Your task to perform on an android device: Go to accessibility settings Image 0: 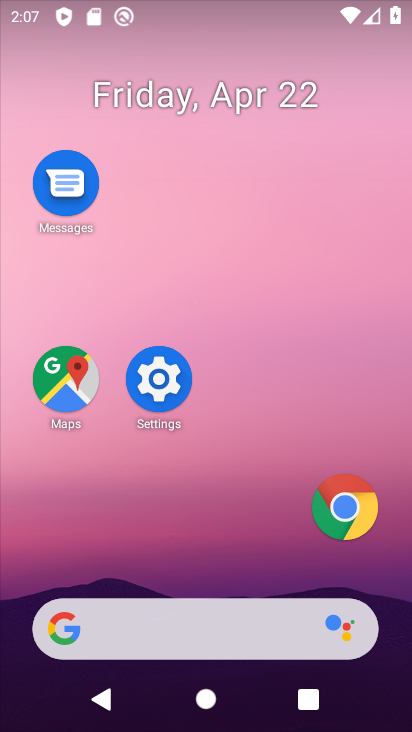
Step 0: drag from (197, 272) to (222, 483)
Your task to perform on an android device: Go to accessibility settings Image 1: 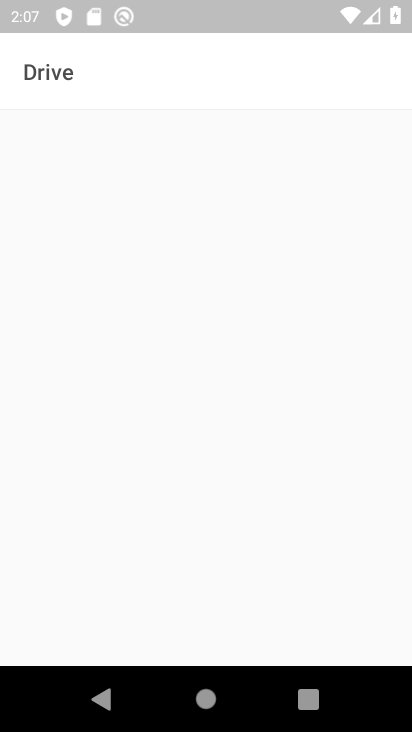
Step 1: click (150, 377)
Your task to perform on an android device: Go to accessibility settings Image 2: 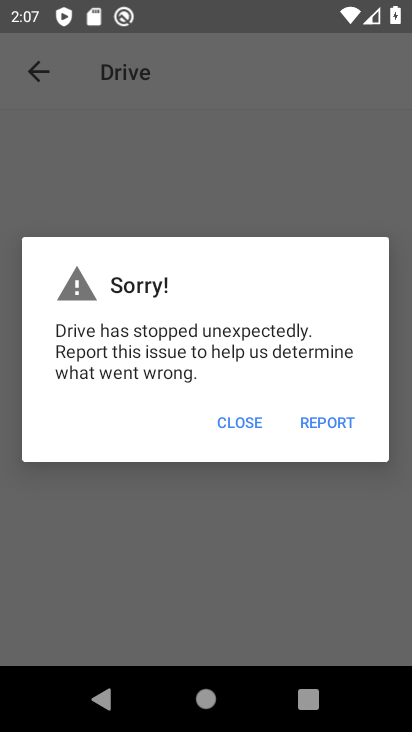
Step 2: click (330, 426)
Your task to perform on an android device: Go to accessibility settings Image 3: 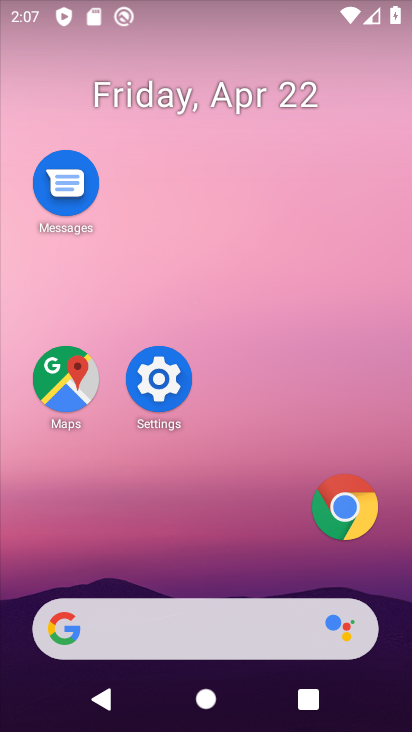
Step 3: click (227, 185)
Your task to perform on an android device: Go to accessibility settings Image 4: 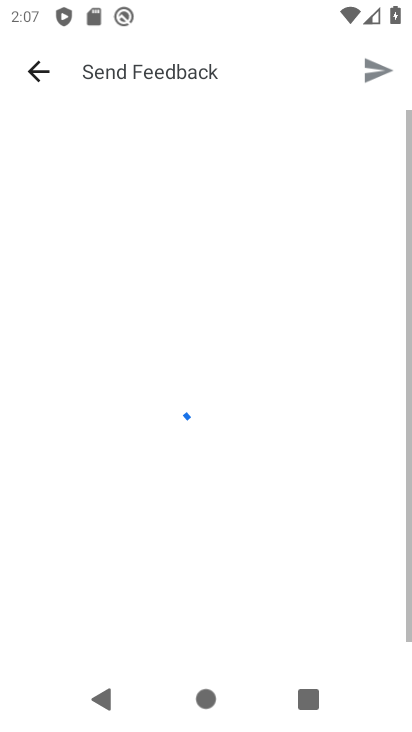
Step 4: drag from (211, 365) to (198, 229)
Your task to perform on an android device: Go to accessibility settings Image 5: 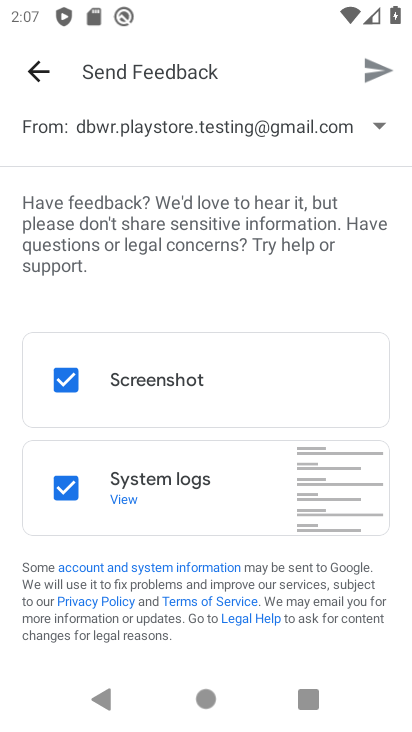
Step 5: click (38, 75)
Your task to perform on an android device: Go to accessibility settings Image 6: 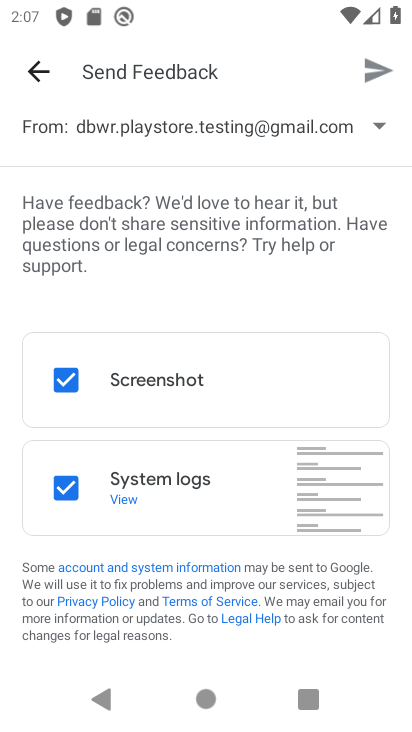
Step 6: click (36, 73)
Your task to perform on an android device: Go to accessibility settings Image 7: 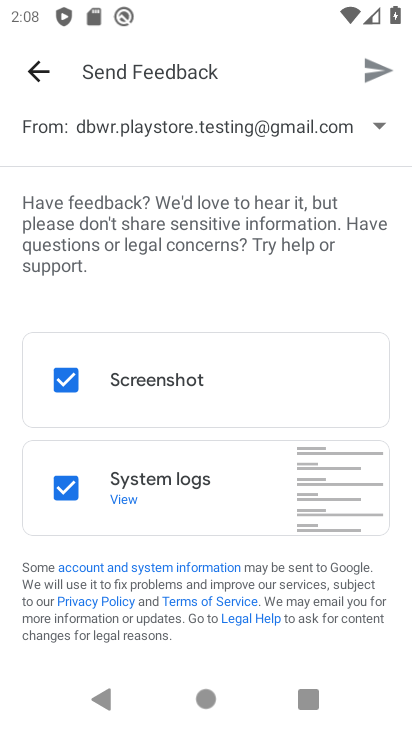
Step 7: click (37, 72)
Your task to perform on an android device: Go to accessibility settings Image 8: 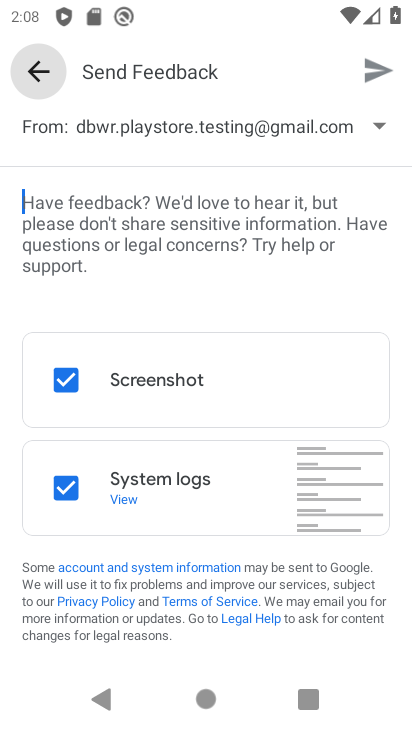
Step 8: click (37, 72)
Your task to perform on an android device: Go to accessibility settings Image 9: 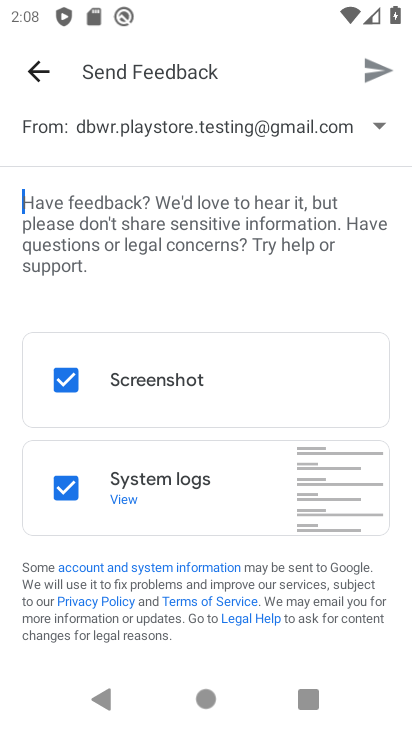
Step 9: click (29, 64)
Your task to perform on an android device: Go to accessibility settings Image 10: 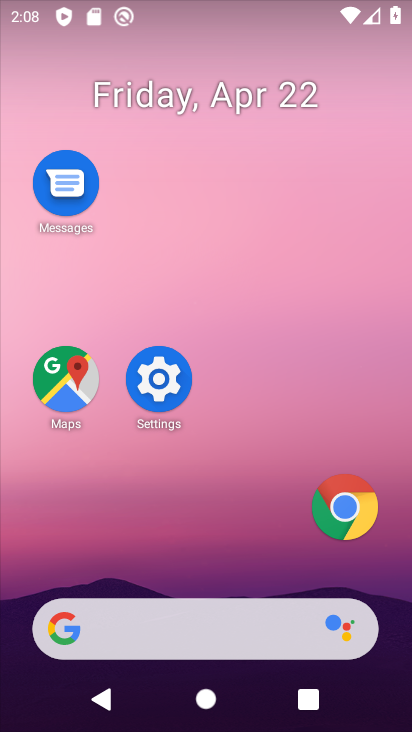
Step 10: drag from (236, 651) to (209, 52)
Your task to perform on an android device: Go to accessibility settings Image 11: 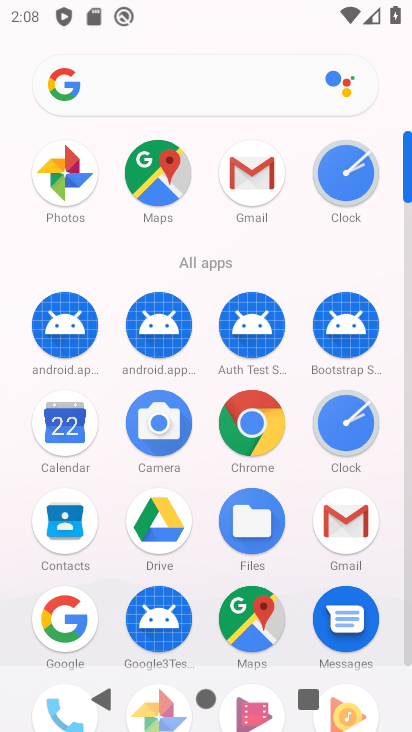
Step 11: drag from (153, 514) to (192, 211)
Your task to perform on an android device: Go to accessibility settings Image 12: 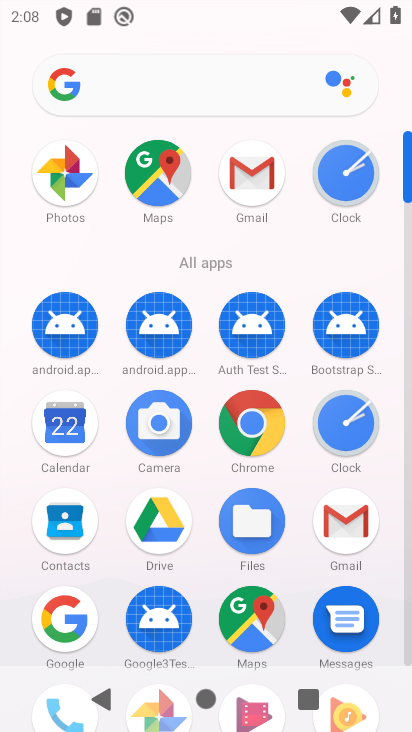
Step 12: drag from (217, 544) to (184, 634)
Your task to perform on an android device: Go to accessibility settings Image 13: 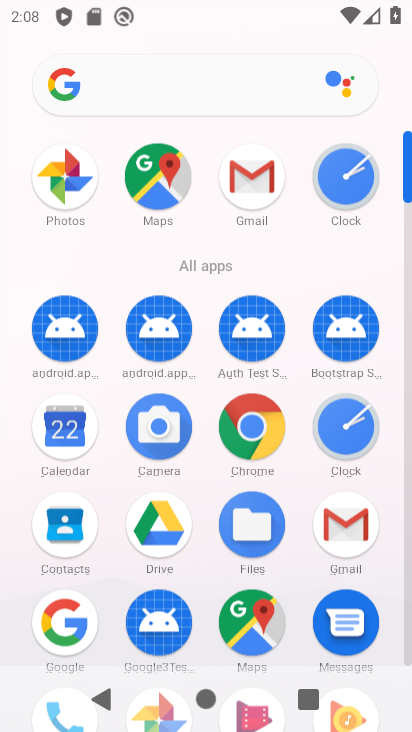
Step 13: drag from (187, 560) to (160, 325)
Your task to perform on an android device: Go to accessibility settings Image 14: 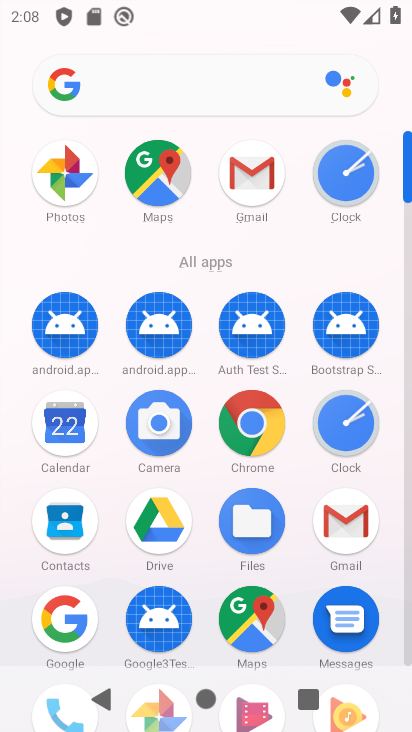
Step 14: drag from (206, 290) to (168, 68)
Your task to perform on an android device: Go to accessibility settings Image 15: 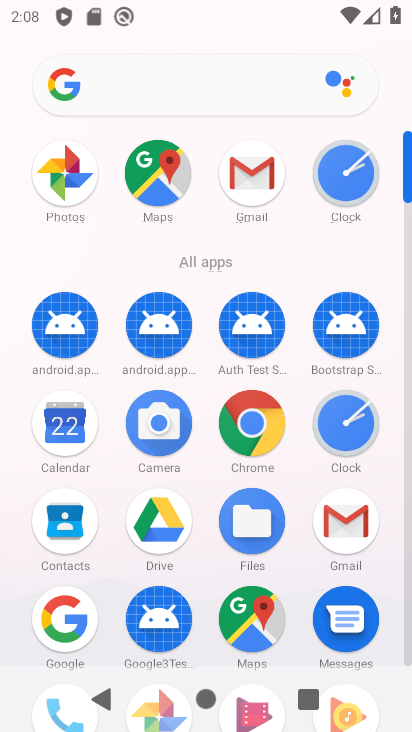
Step 15: drag from (193, 553) to (154, 254)
Your task to perform on an android device: Go to accessibility settings Image 16: 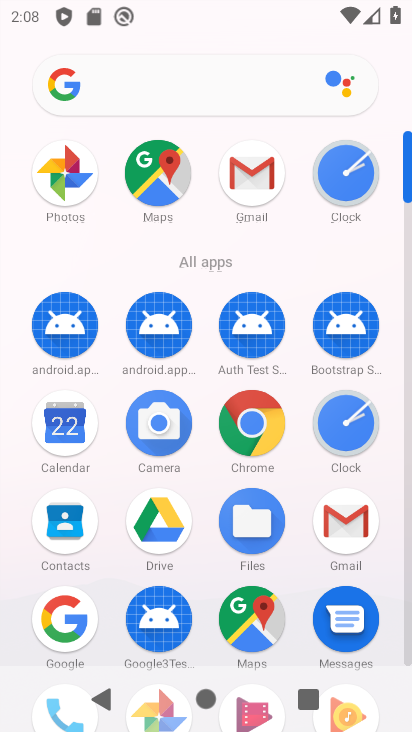
Step 16: drag from (206, 331) to (179, 91)
Your task to perform on an android device: Go to accessibility settings Image 17: 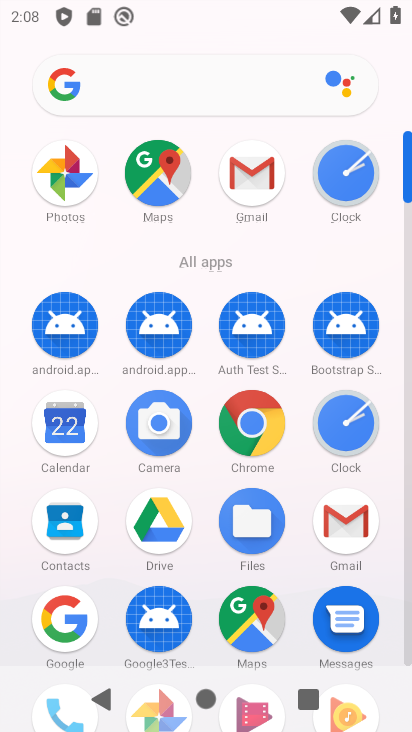
Step 17: drag from (384, 525) to (365, 293)
Your task to perform on an android device: Go to accessibility settings Image 18: 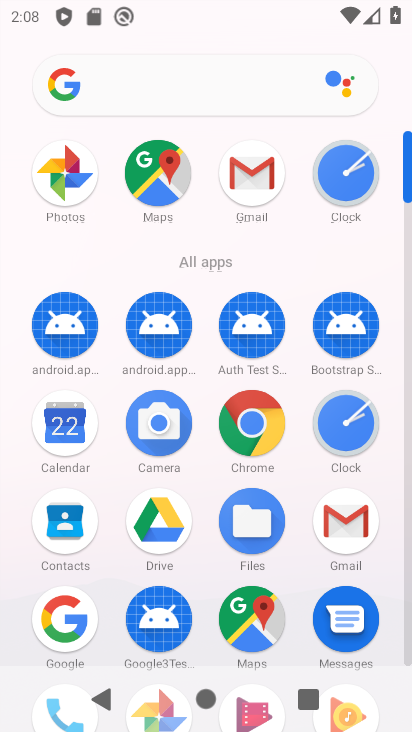
Step 18: click (405, 571)
Your task to perform on an android device: Go to accessibility settings Image 19: 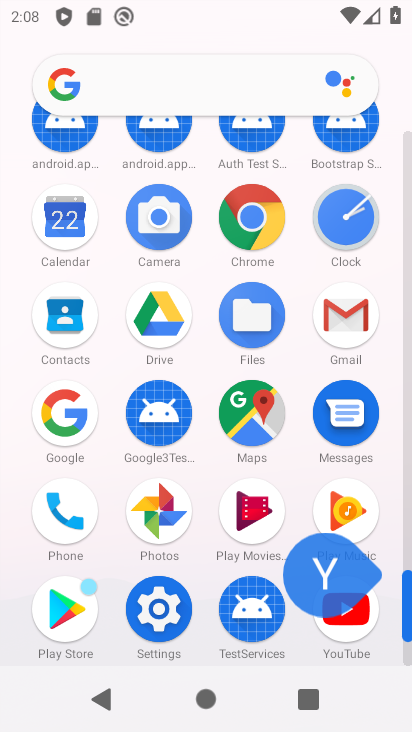
Step 19: click (398, 616)
Your task to perform on an android device: Go to accessibility settings Image 20: 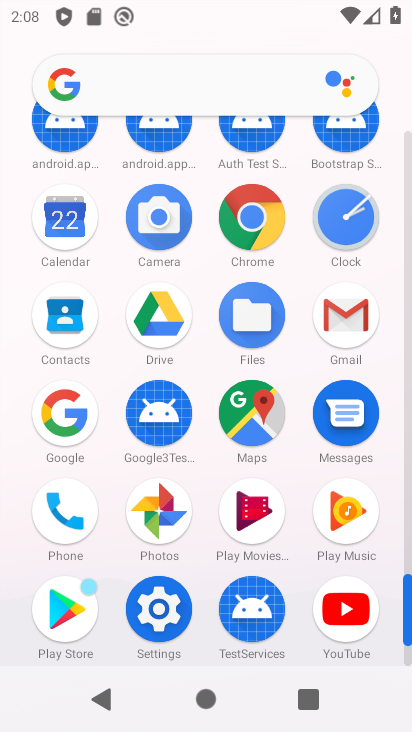
Step 20: click (399, 546)
Your task to perform on an android device: Go to accessibility settings Image 21: 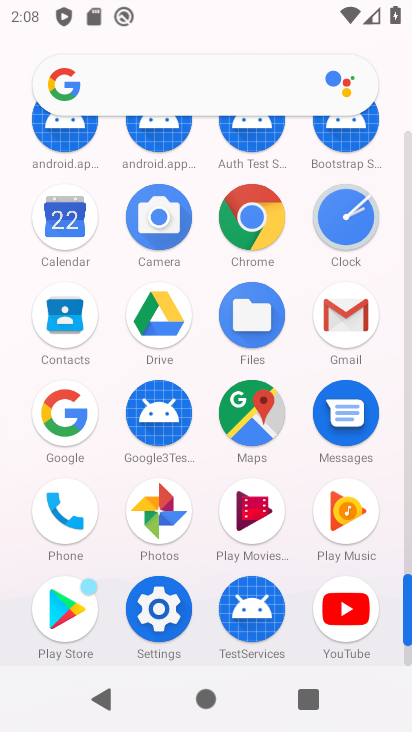
Step 21: click (152, 611)
Your task to perform on an android device: Go to accessibility settings Image 22: 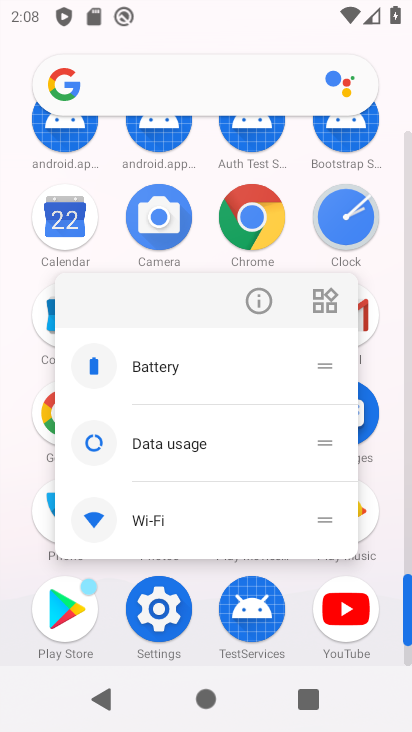
Step 22: click (158, 601)
Your task to perform on an android device: Go to accessibility settings Image 23: 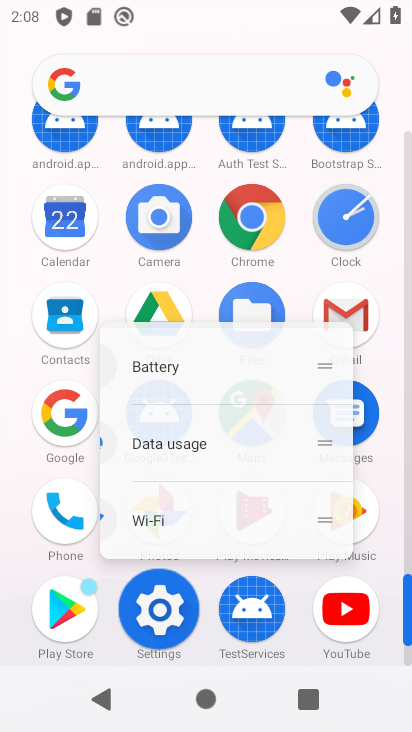
Step 23: click (156, 586)
Your task to perform on an android device: Go to accessibility settings Image 24: 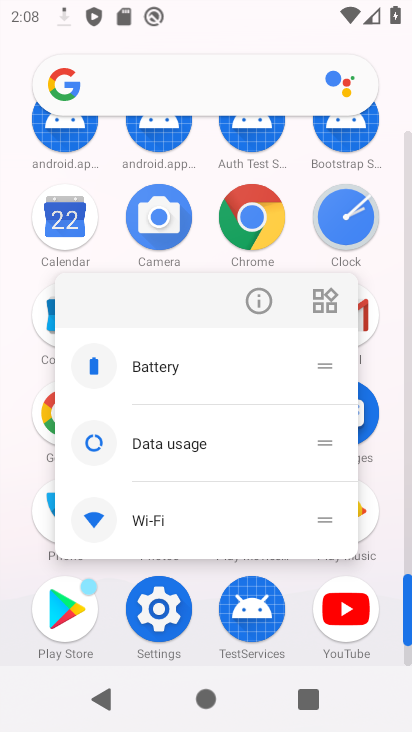
Step 24: click (150, 608)
Your task to perform on an android device: Go to accessibility settings Image 25: 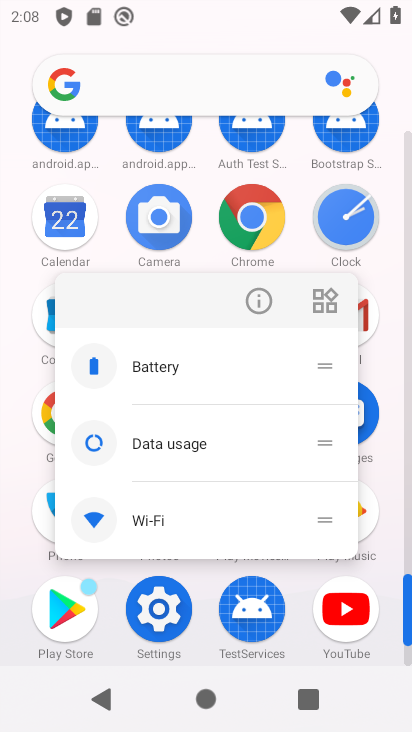
Step 25: click (157, 596)
Your task to perform on an android device: Go to accessibility settings Image 26: 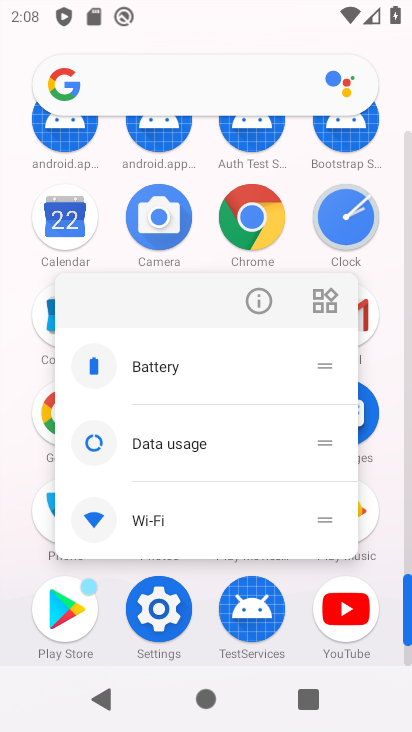
Step 26: click (163, 591)
Your task to perform on an android device: Go to accessibility settings Image 27: 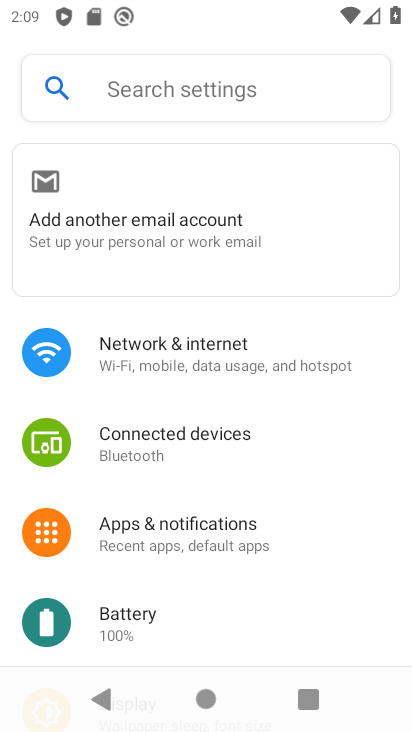
Step 27: drag from (240, 525) to (213, 180)
Your task to perform on an android device: Go to accessibility settings Image 28: 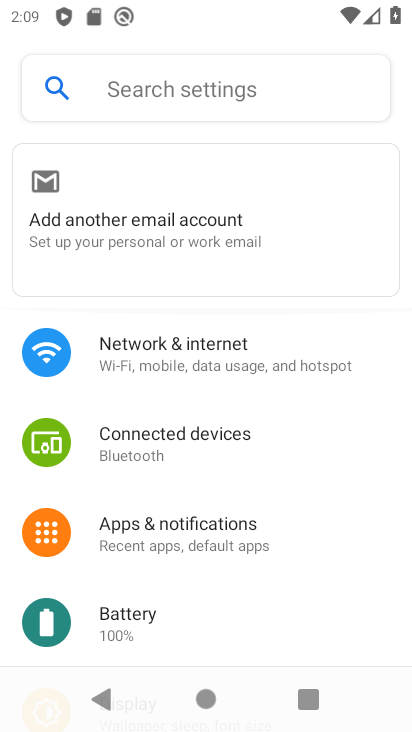
Step 28: drag from (213, 176) to (219, 115)
Your task to perform on an android device: Go to accessibility settings Image 29: 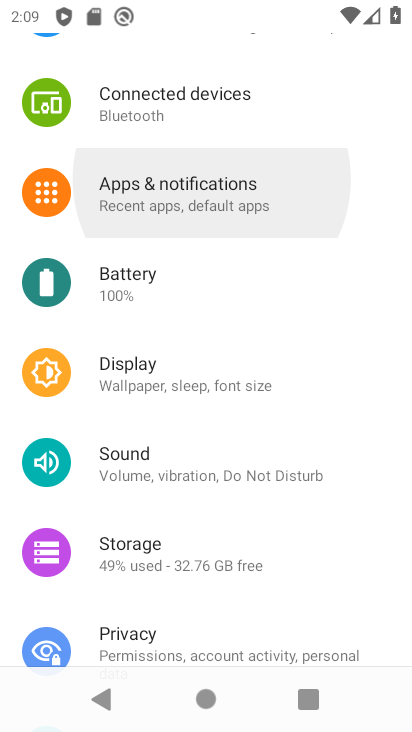
Step 29: click (190, 82)
Your task to perform on an android device: Go to accessibility settings Image 30: 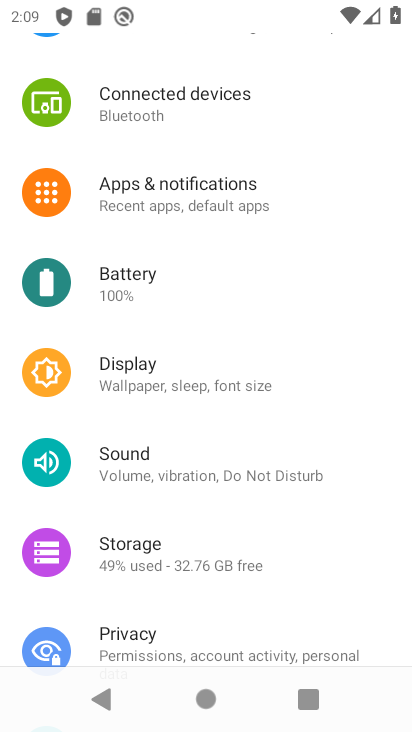
Step 30: drag from (124, 416) to (116, 67)
Your task to perform on an android device: Go to accessibility settings Image 31: 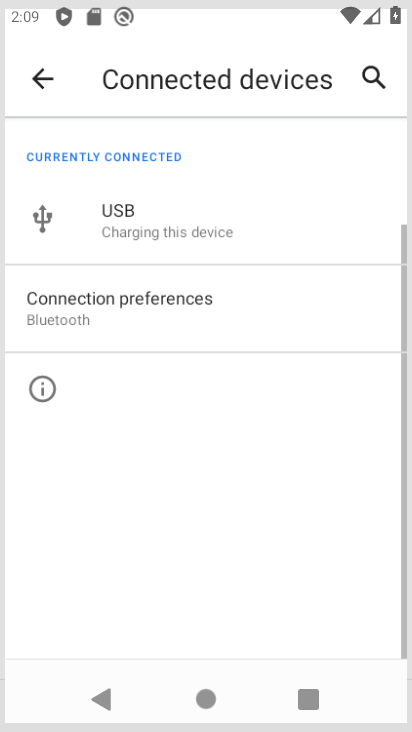
Step 31: click (158, 113)
Your task to perform on an android device: Go to accessibility settings Image 32: 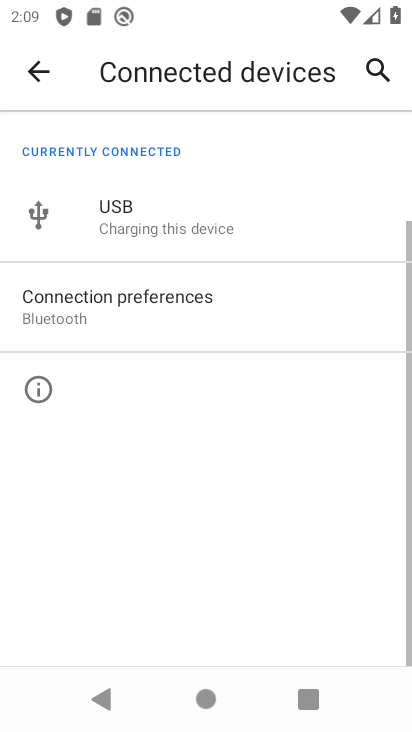
Step 32: click (202, 110)
Your task to perform on an android device: Go to accessibility settings Image 33: 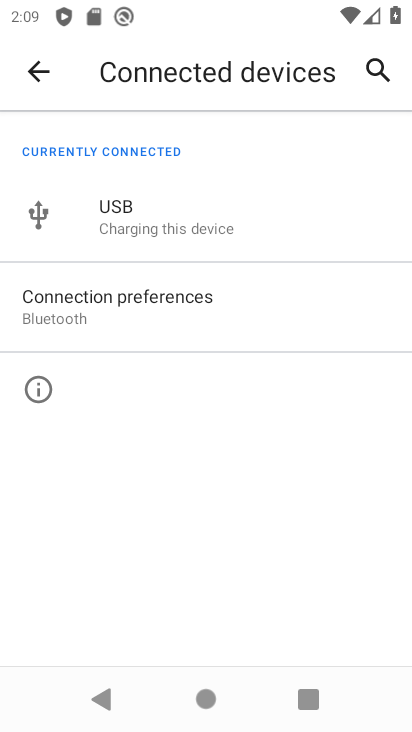
Step 33: click (38, 71)
Your task to perform on an android device: Go to accessibility settings Image 34: 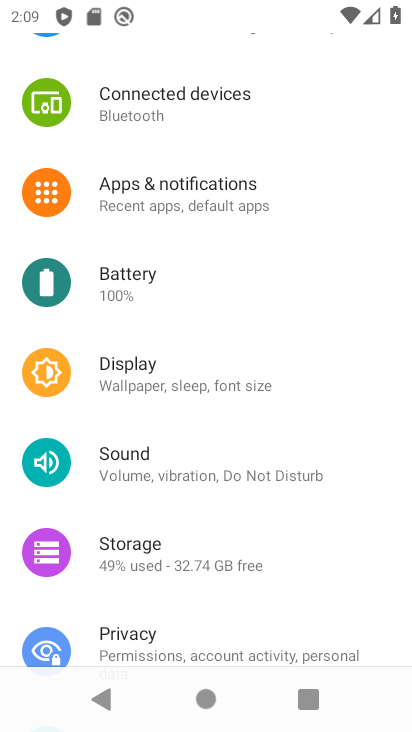
Step 34: drag from (170, 368) to (106, 89)
Your task to perform on an android device: Go to accessibility settings Image 35: 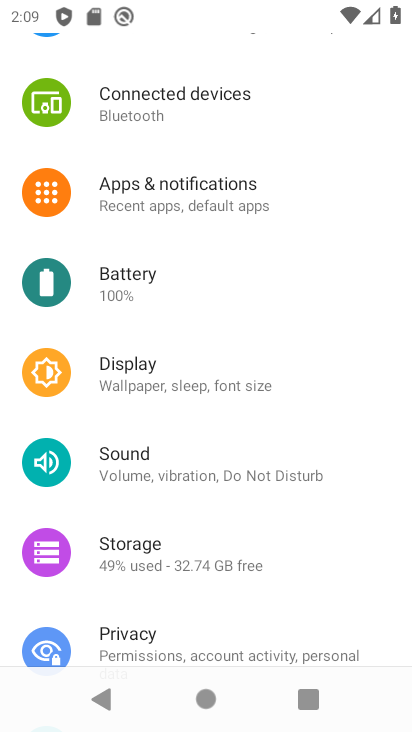
Step 35: click (143, 76)
Your task to perform on an android device: Go to accessibility settings Image 36: 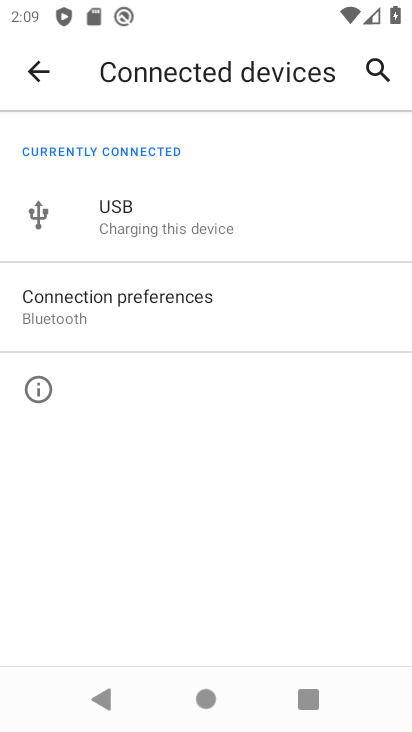
Step 36: click (27, 61)
Your task to perform on an android device: Go to accessibility settings Image 37: 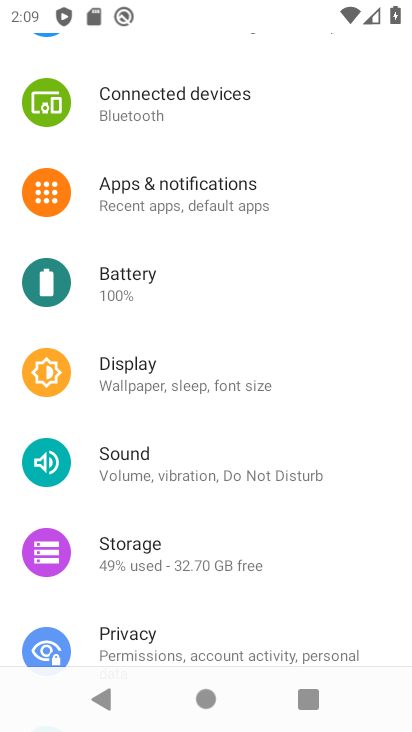
Step 37: drag from (194, 160) to (202, 238)
Your task to perform on an android device: Go to accessibility settings Image 38: 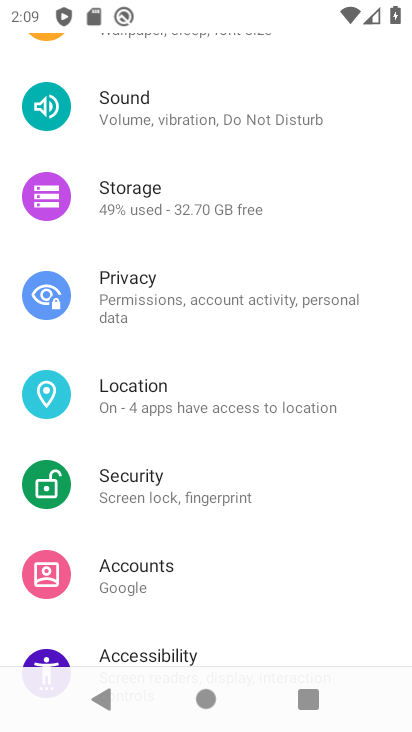
Step 38: click (146, 652)
Your task to perform on an android device: Go to accessibility settings Image 39: 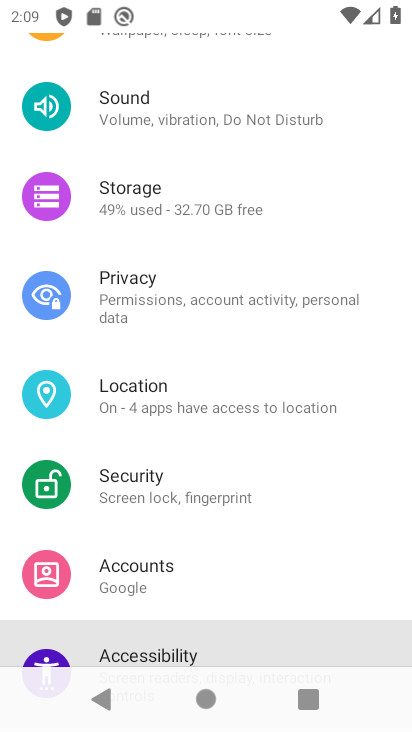
Step 39: click (146, 652)
Your task to perform on an android device: Go to accessibility settings Image 40: 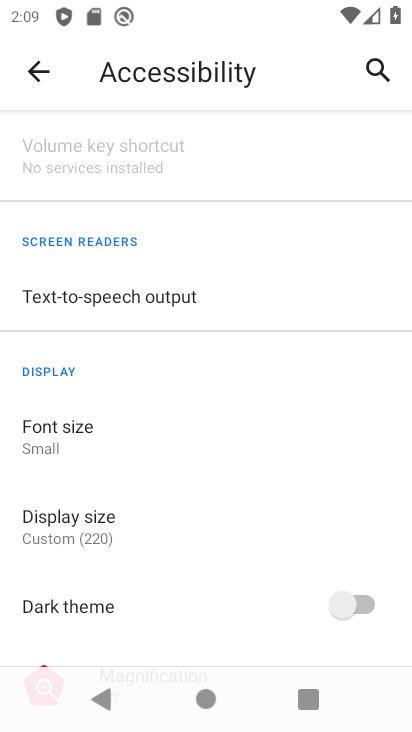
Step 40: task complete